Your task to perform on an android device: turn on bluetooth scan Image 0: 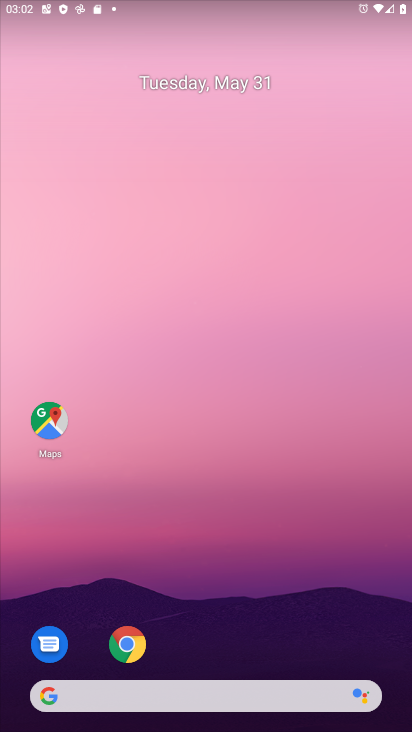
Step 0: drag from (286, 577) to (332, 34)
Your task to perform on an android device: turn on bluetooth scan Image 1: 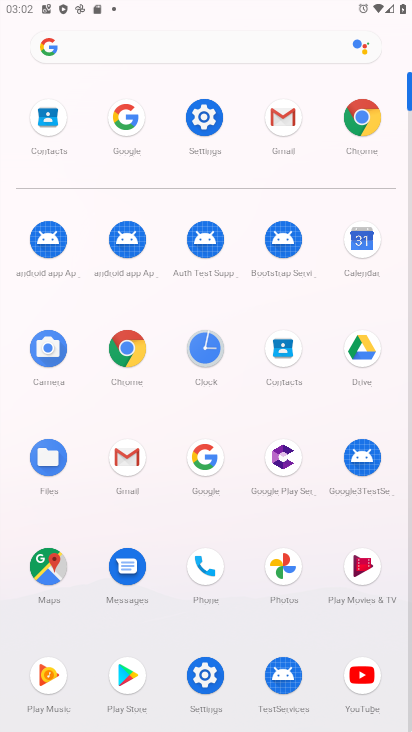
Step 1: click (211, 109)
Your task to perform on an android device: turn on bluetooth scan Image 2: 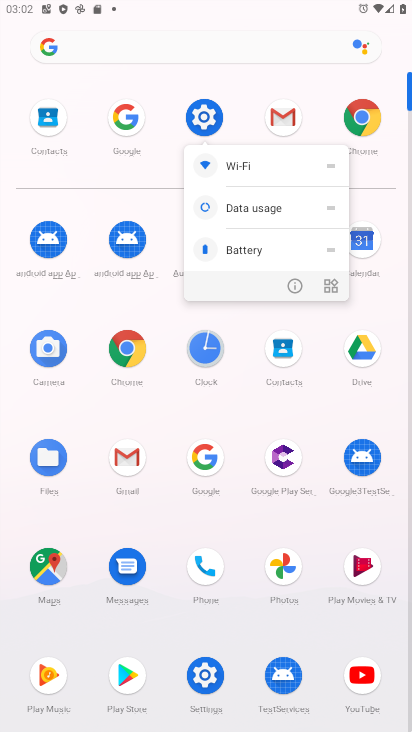
Step 2: click (211, 108)
Your task to perform on an android device: turn on bluetooth scan Image 3: 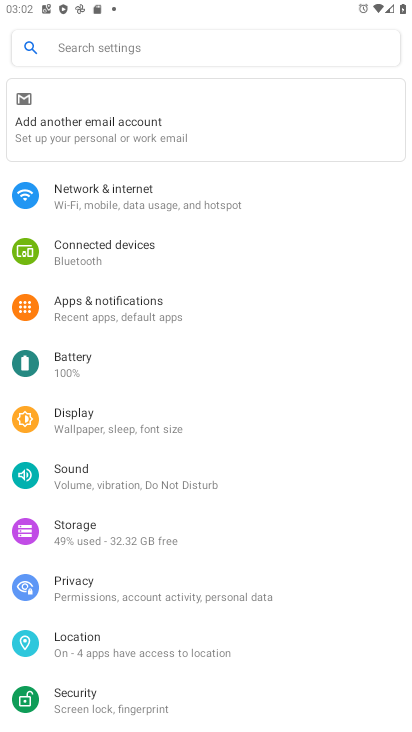
Step 3: click (80, 654)
Your task to perform on an android device: turn on bluetooth scan Image 4: 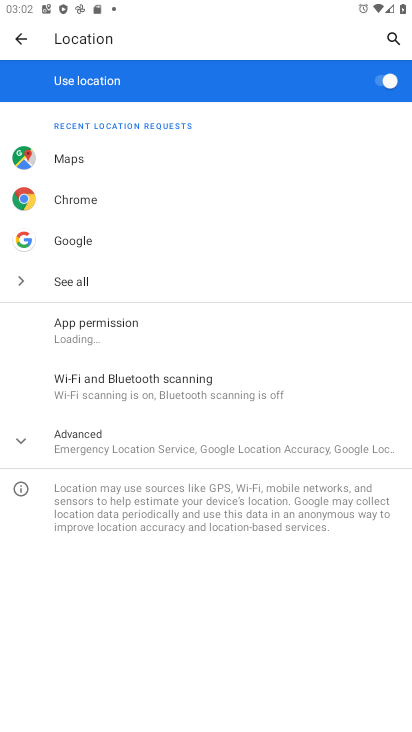
Step 4: click (207, 397)
Your task to perform on an android device: turn on bluetooth scan Image 5: 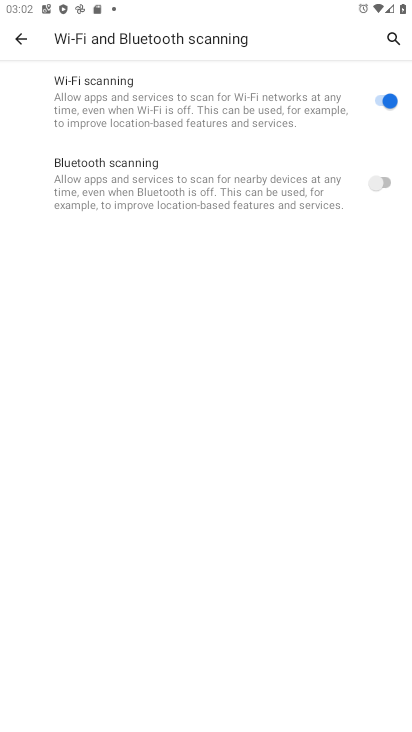
Step 5: click (385, 180)
Your task to perform on an android device: turn on bluetooth scan Image 6: 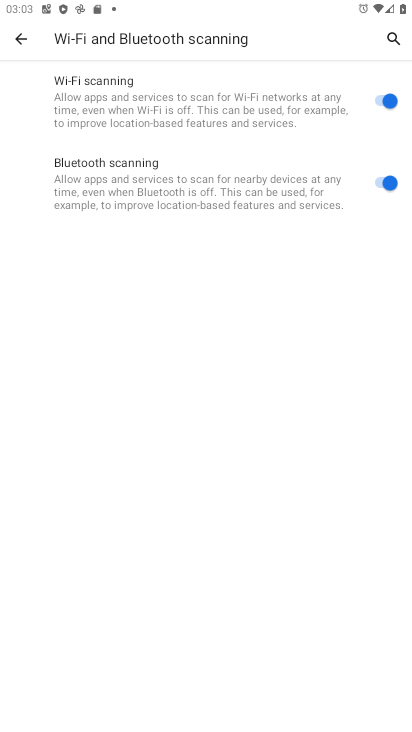
Step 6: task complete